Your task to perform on an android device: open chrome privacy settings Image 0: 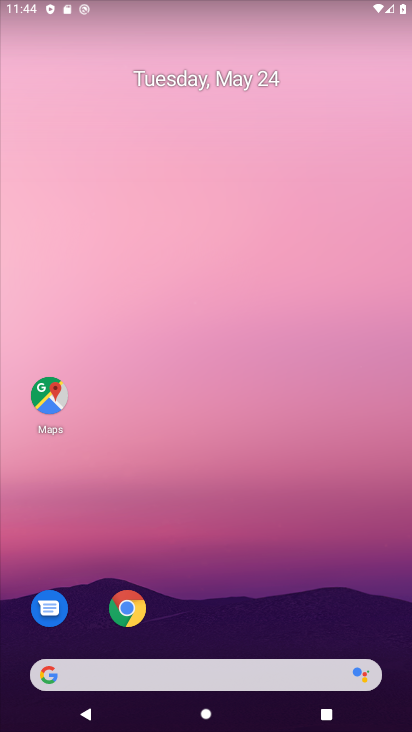
Step 0: click (136, 610)
Your task to perform on an android device: open chrome privacy settings Image 1: 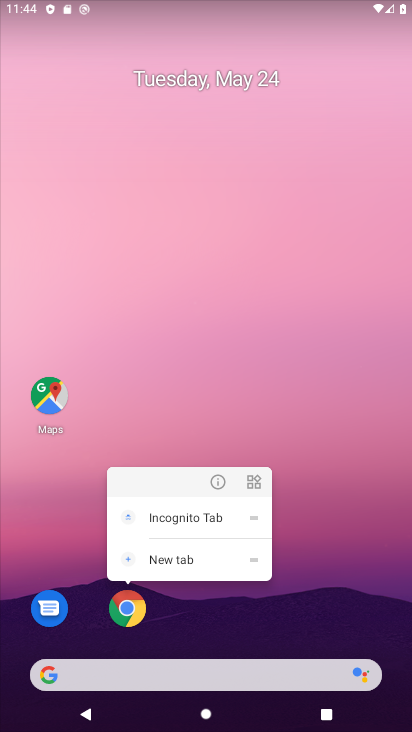
Step 1: click (133, 607)
Your task to perform on an android device: open chrome privacy settings Image 2: 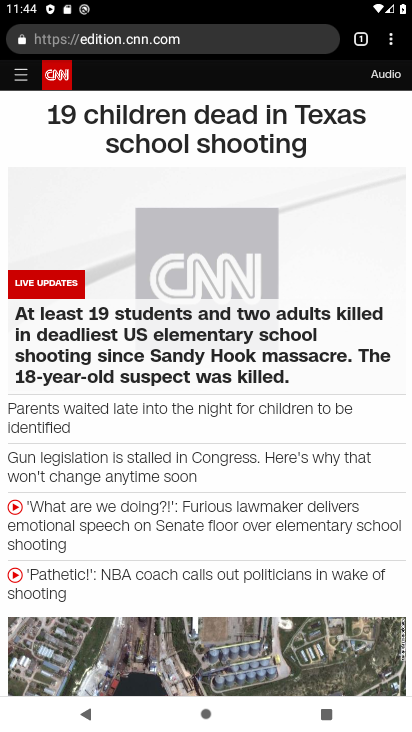
Step 2: drag from (401, 36) to (297, 474)
Your task to perform on an android device: open chrome privacy settings Image 3: 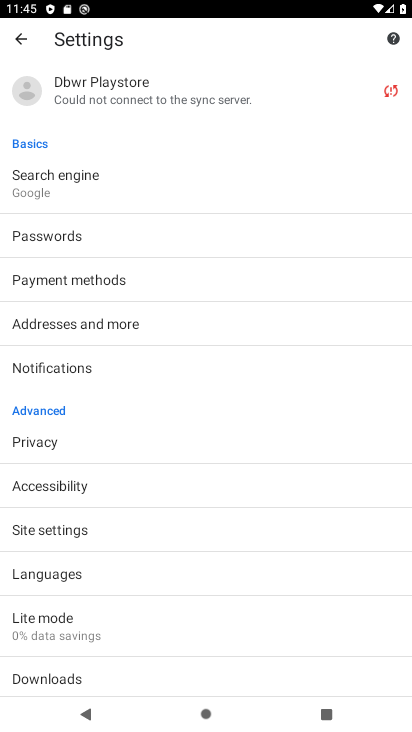
Step 3: click (151, 434)
Your task to perform on an android device: open chrome privacy settings Image 4: 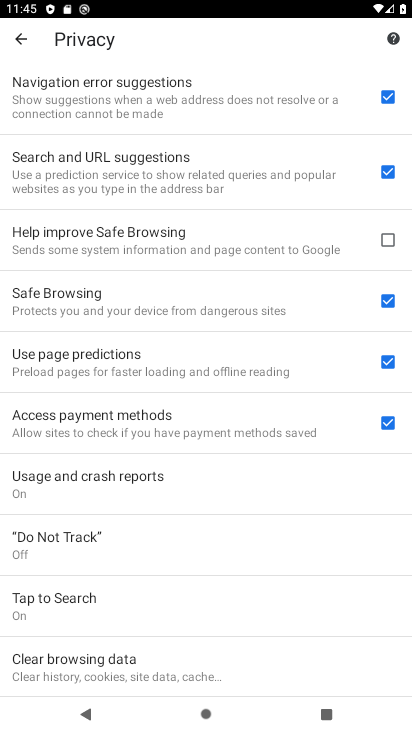
Step 4: task complete